Your task to perform on an android device: What's the weather going to be this weekend? Image 0: 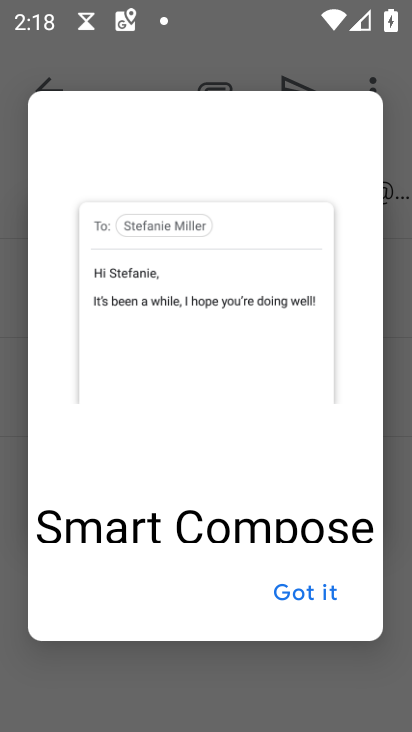
Step 0: press home button
Your task to perform on an android device: What's the weather going to be this weekend? Image 1: 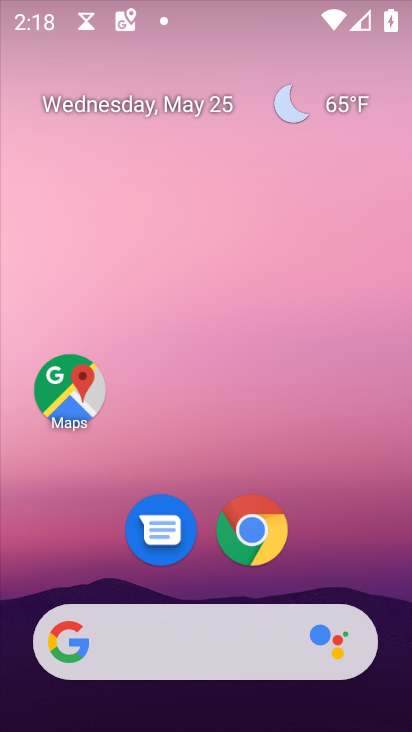
Step 1: drag from (303, 583) to (368, 242)
Your task to perform on an android device: What's the weather going to be this weekend? Image 2: 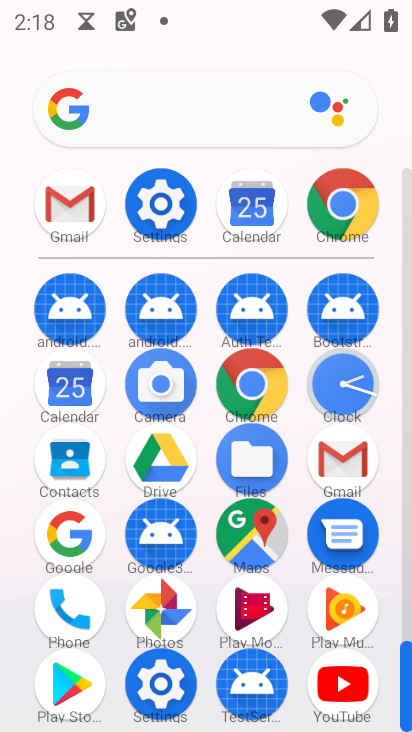
Step 2: click (76, 387)
Your task to perform on an android device: What's the weather going to be this weekend? Image 3: 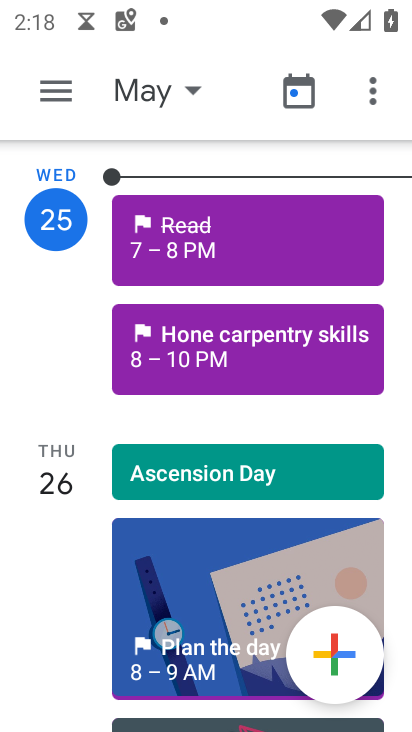
Step 3: click (42, 82)
Your task to perform on an android device: What's the weather going to be this weekend? Image 4: 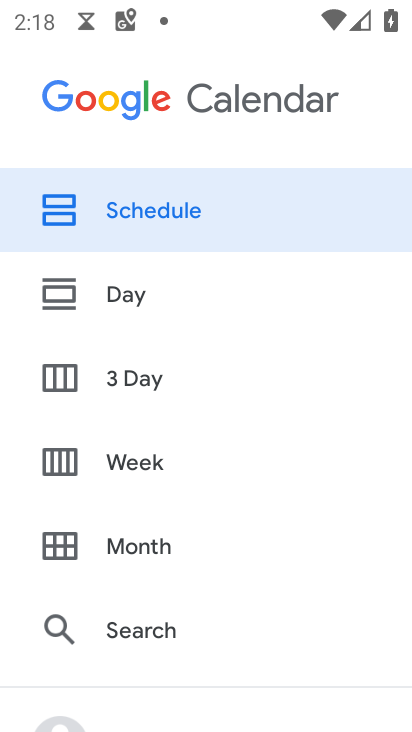
Step 4: click (144, 456)
Your task to perform on an android device: What's the weather going to be this weekend? Image 5: 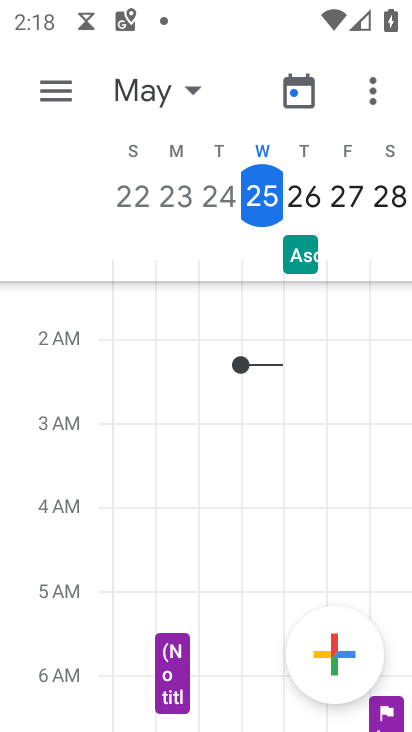
Step 5: task complete